Your task to perform on an android device: turn notification dots off Image 0: 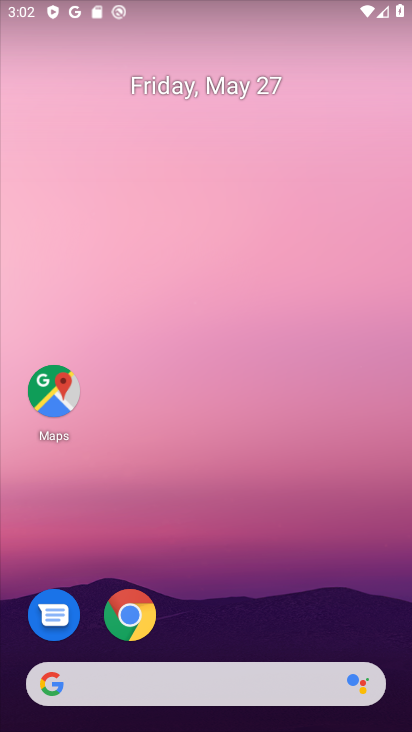
Step 0: drag from (247, 616) to (243, 263)
Your task to perform on an android device: turn notification dots off Image 1: 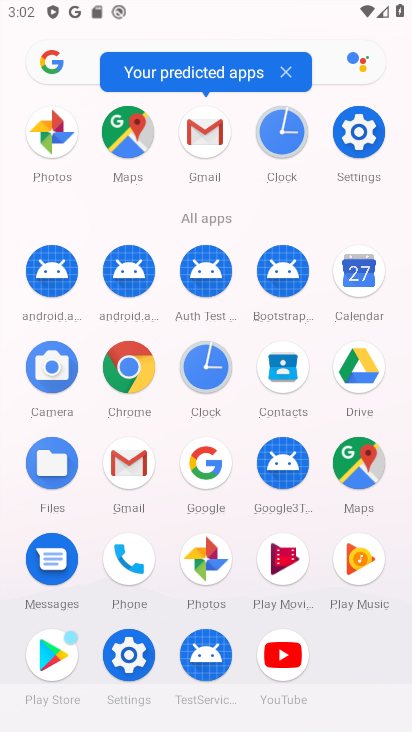
Step 1: click (362, 152)
Your task to perform on an android device: turn notification dots off Image 2: 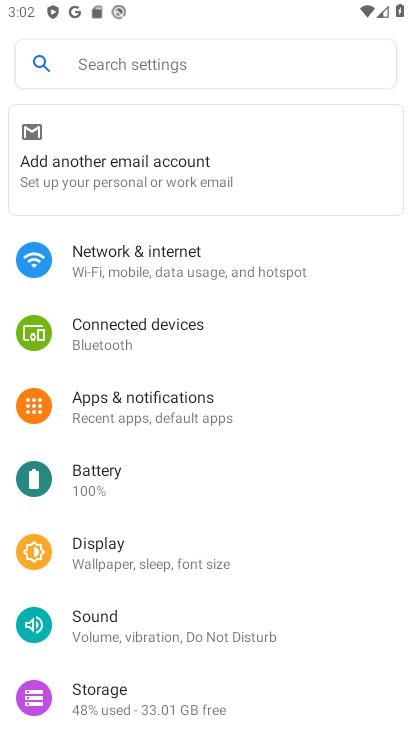
Step 2: click (119, 421)
Your task to perform on an android device: turn notification dots off Image 3: 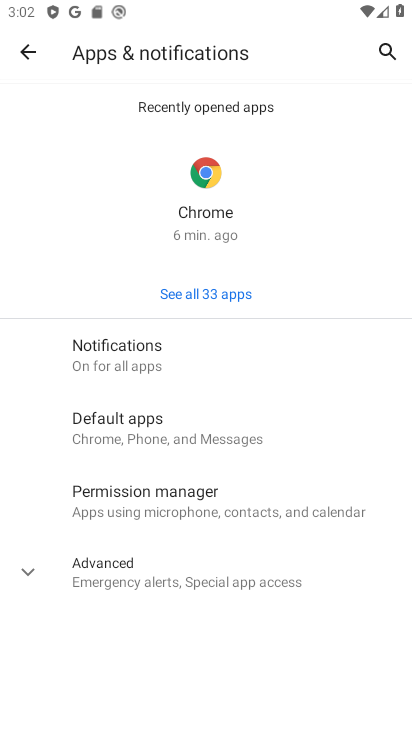
Step 3: click (120, 362)
Your task to perform on an android device: turn notification dots off Image 4: 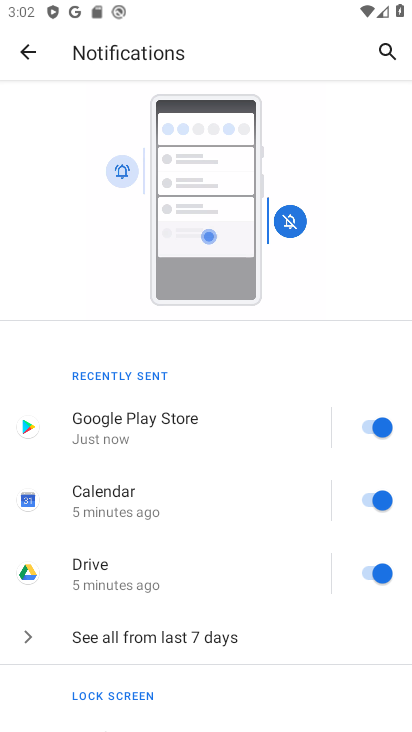
Step 4: drag from (162, 680) to (196, 398)
Your task to perform on an android device: turn notification dots off Image 5: 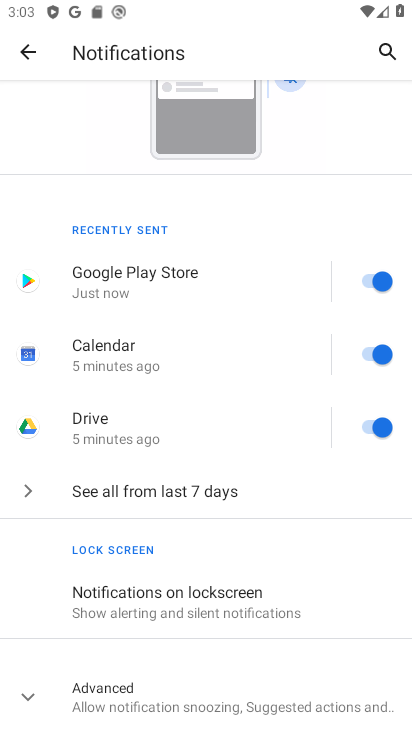
Step 5: click (112, 716)
Your task to perform on an android device: turn notification dots off Image 6: 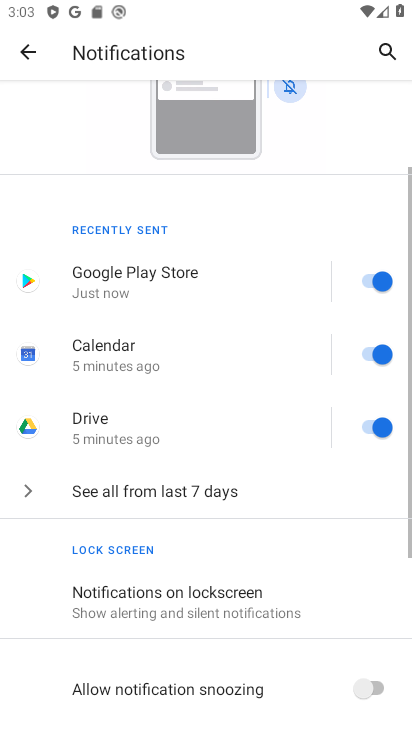
Step 6: drag from (111, 715) to (172, 466)
Your task to perform on an android device: turn notification dots off Image 7: 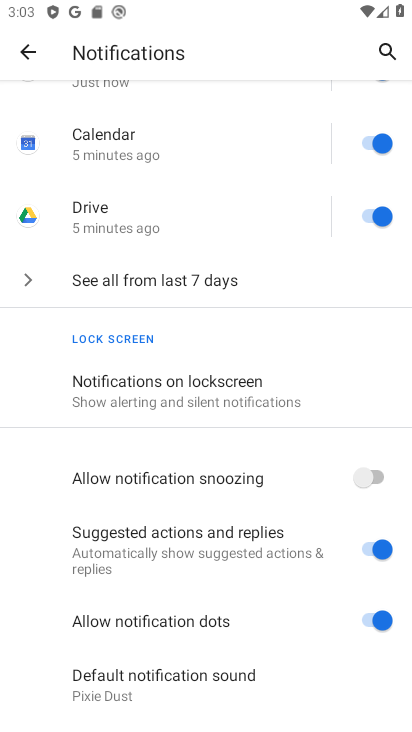
Step 7: click (367, 620)
Your task to perform on an android device: turn notification dots off Image 8: 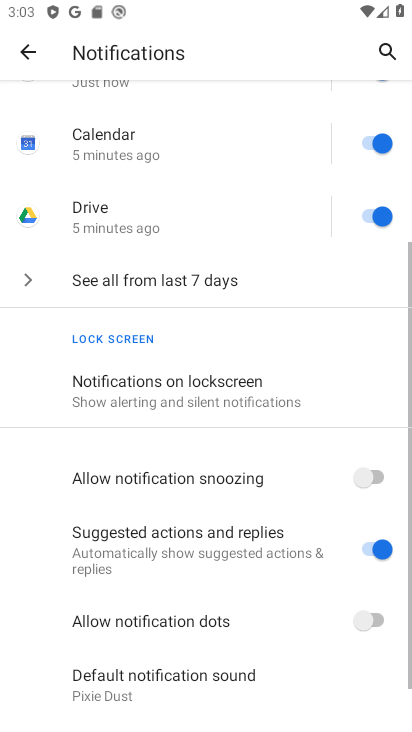
Step 8: task complete